Your task to perform on an android device: Open the phone app and click the voicemail tab. Image 0: 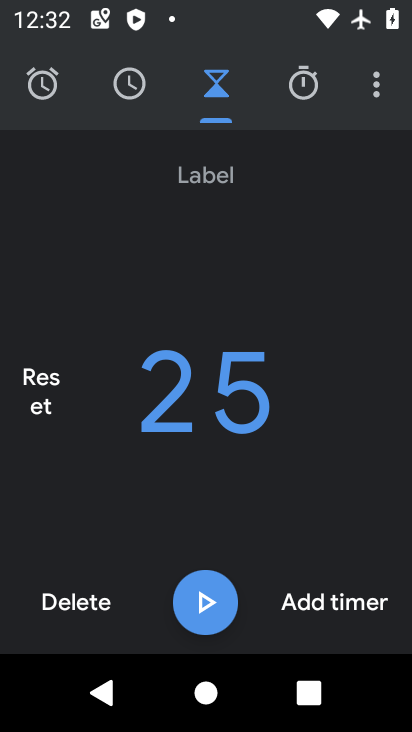
Step 0: press home button
Your task to perform on an android device: Open the phone app and click the voicemail tab. Image 1: 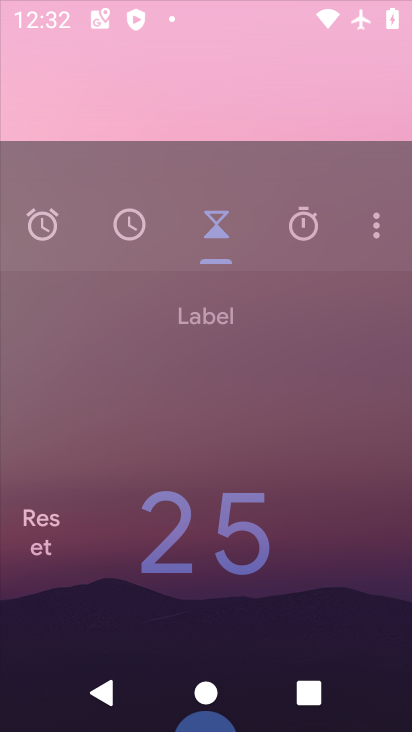
Step 1: drag from (153, 533) to (259, 103)
Your task to perform on an android device: Open the phone app and click the voicemail tab. Image 2: 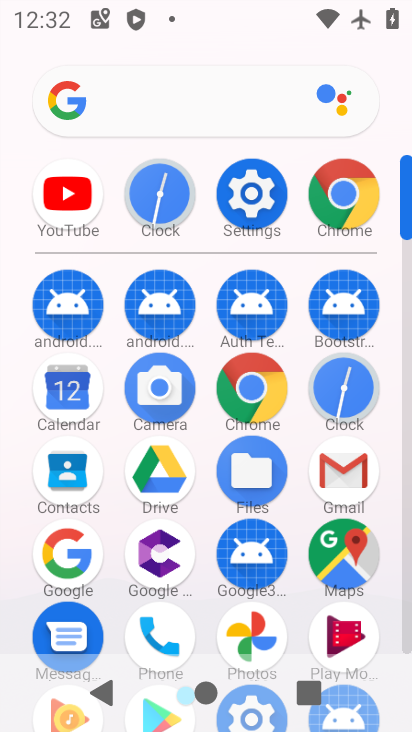
Step 2: click (156, 625)
Your task to perform on an android device: Open the phone app and click the voicemail tab. Image 3: 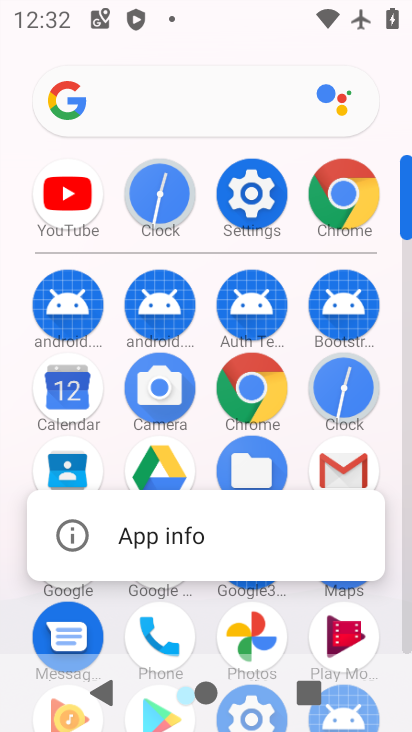
Step 3: click (162, 530)
Your task to perform on an android device: Open the phone app and click the voicemail tab. Image 4: 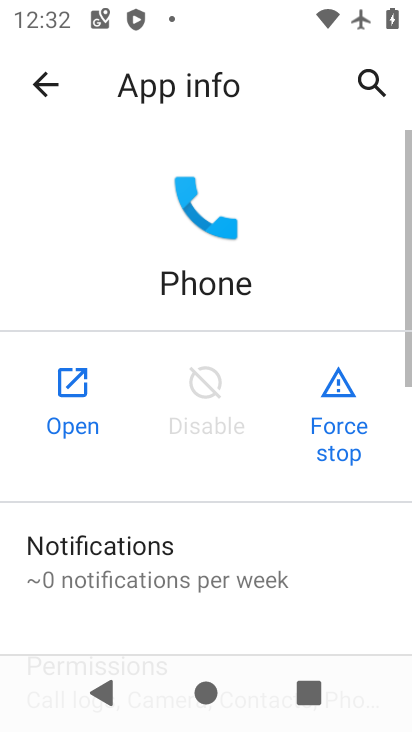
Step 4: click (72, 387)
Your task to perform on an android device: Open the phone app and click the voicemail tab. Image 5: 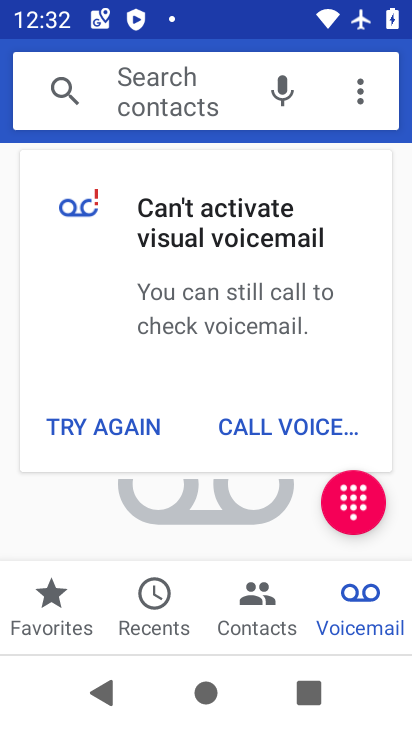
Step 5: click (360, 622)
Your task to perform on an android device: Open the phone app and click the voicemail tab. Image 6: 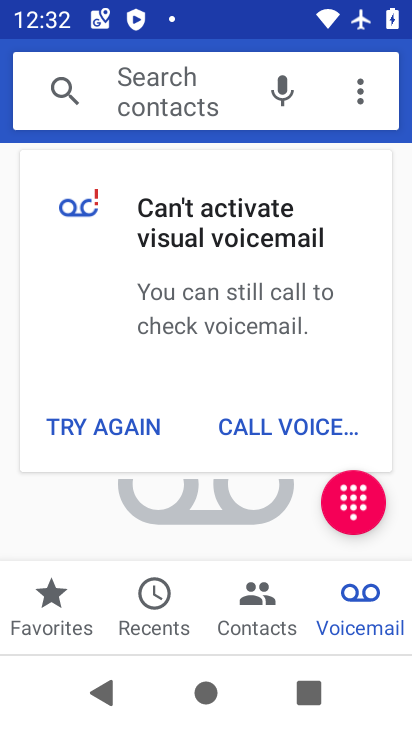
Step 6: task complete